Your task to perform on an android device: Go to Wikipedia Image 0: 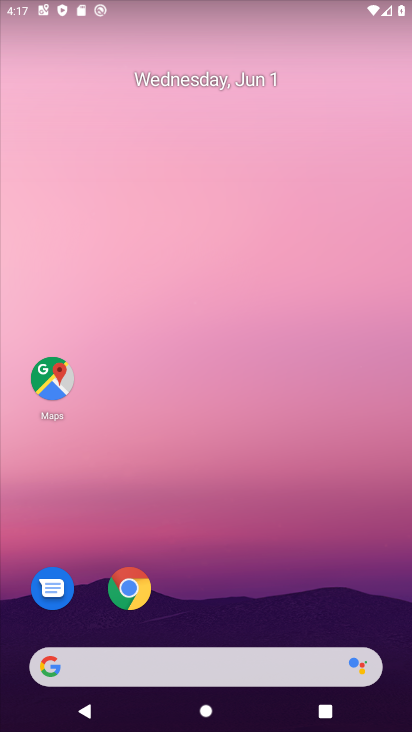
Step 0: click (114, 582)
Your task to perform on an android device: Go to Wikipedia Image 1: 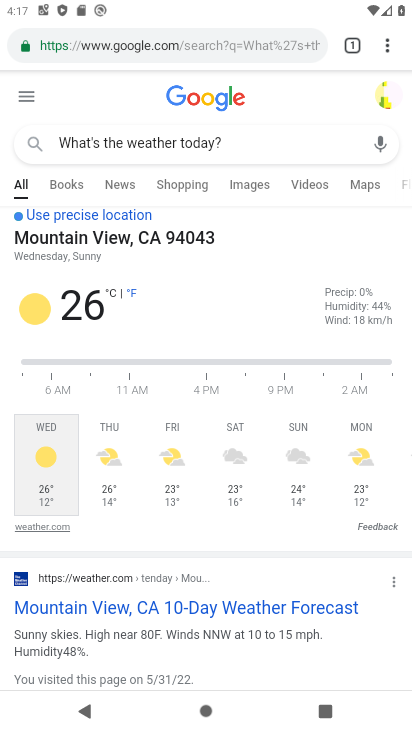
Step 1: click (356, 49)
Your task to perform on an android device: Go to Wikipedia Image 2: 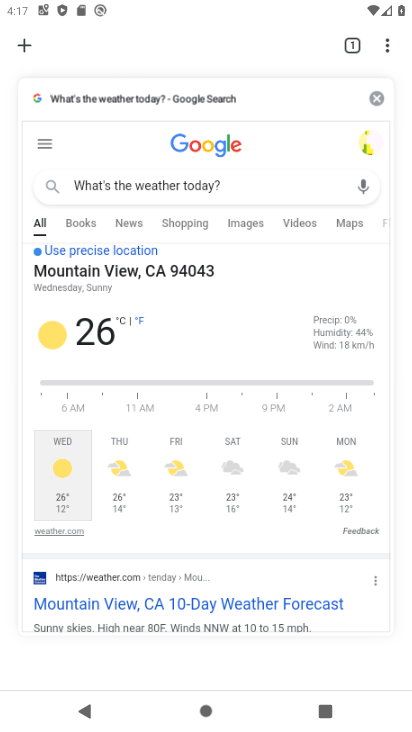
Step 2: click (20, 44)
Your task to perform on an android device: Go to Wikipedia Image 3: 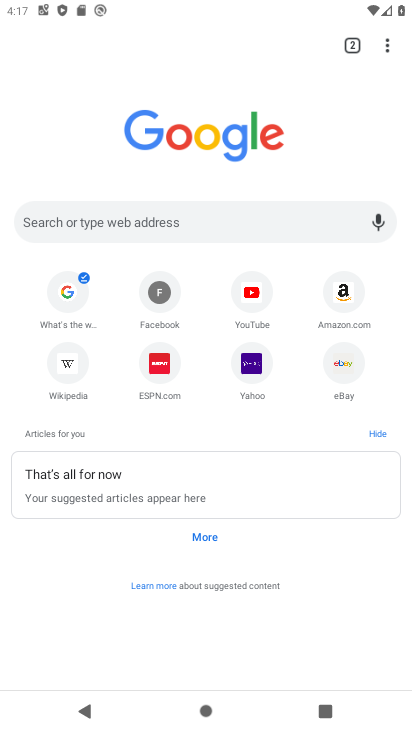
Step 3: click (74, 357)
Your task to perform on an android device: Go to Wikipedia Image 4: 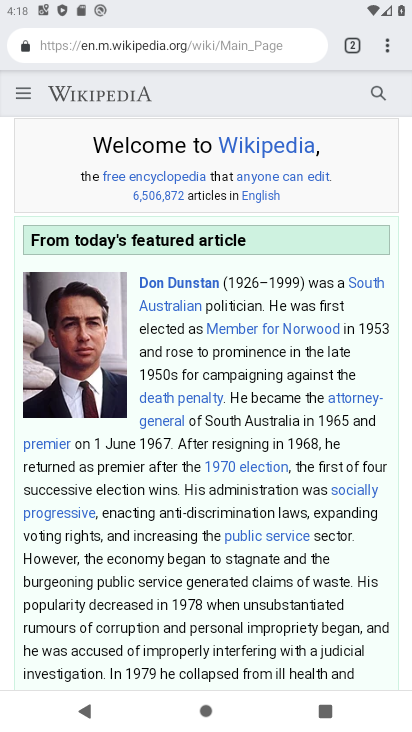
Step 4: task complete